Your task to perform on an android device: allow cookies in the chrome app Image 0: 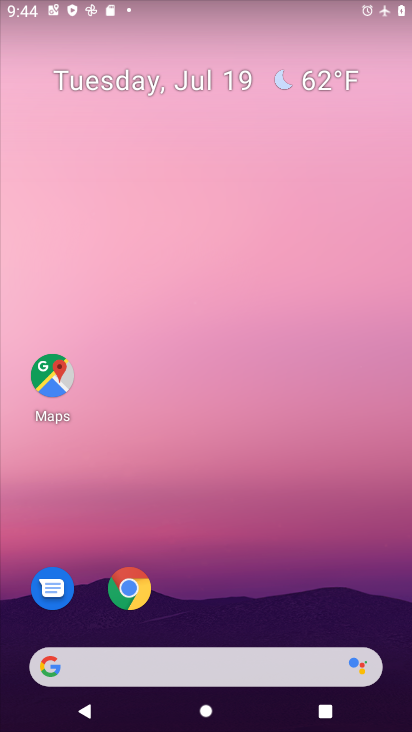
Step 0: drag from (217, 568) to (126, 36)
Your task to perform on an android device: allow cookies in the chrome app Image 1: 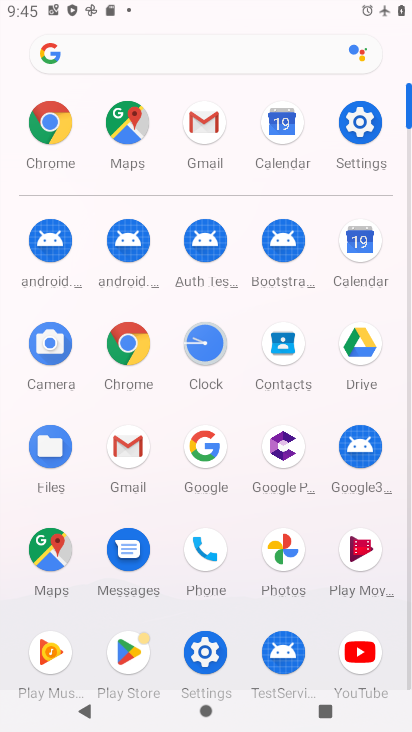
Step 1: click (44, 128)
Your task to perform on an android device: allow cookies in the chrome app Image 2: 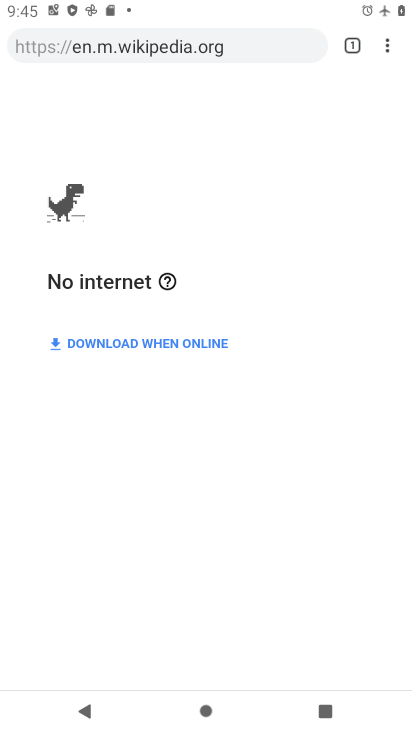
Step 2: drag from (385, 45) to (241, 506)
Your task to perform on an android device: allow cookies in the chrome app Image 3: 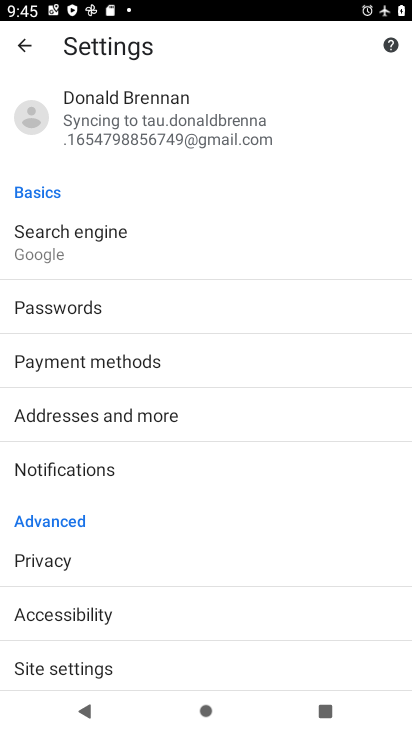
Step 3: drag from (217, 523) to (212, 71)
Your task to perform on an android device: allow cookies in the chrome app Image 4: 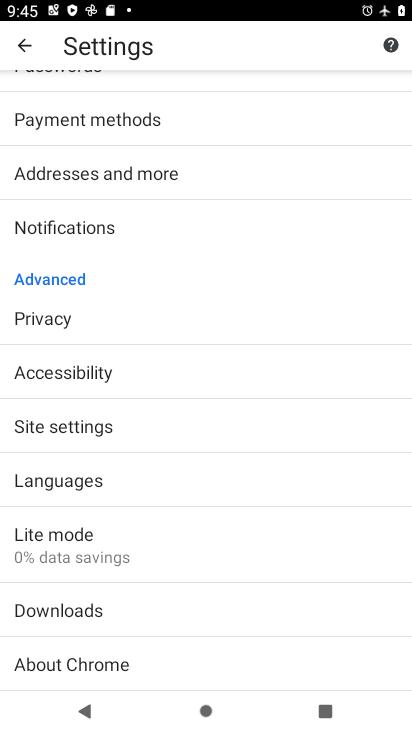
Step 4: click (102, 431)
Your task to perform on an android device: allow cookies in the chrome app Image 5: 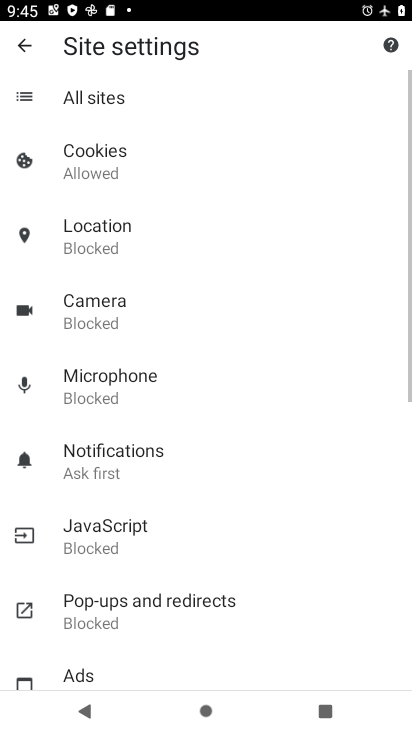
Step 5: click (75, 172)
Your task to perform on an android device: allow cookies in the chrome app Image 6: 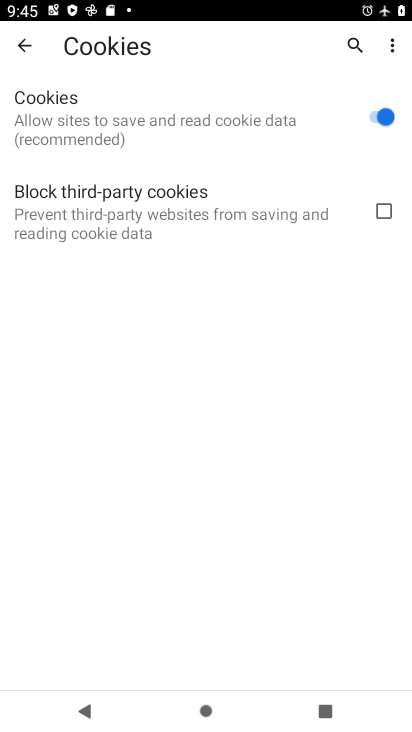
Step 6: task complete